Your task to perform on an android device: allow notifications from all sites in the chrome app Image 0: 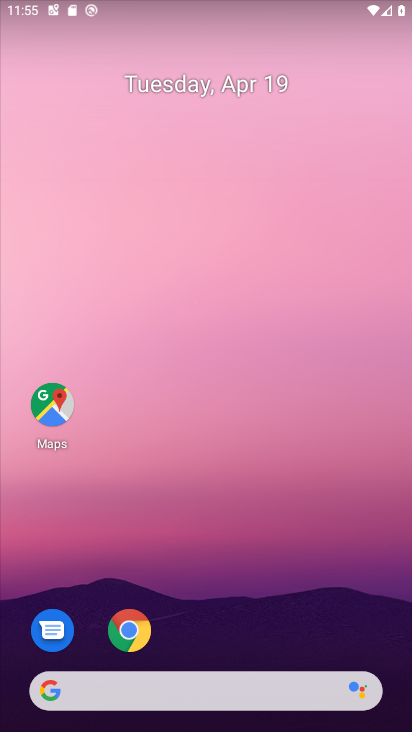
Step 0: drag from (278, 620) to (288, 39)
Your task to perform on an android device: allow notifications from all sites in the chrome app Image 1: 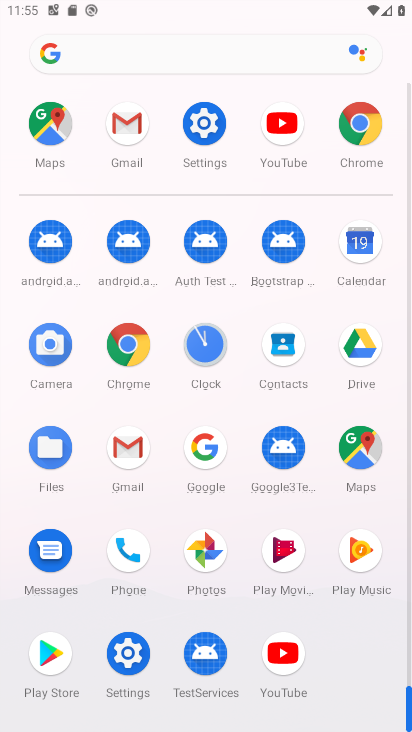
Step 1: click (129, 335)
Your task to perform on an android device: allow notifications from all sites in the chrome app Image 2: 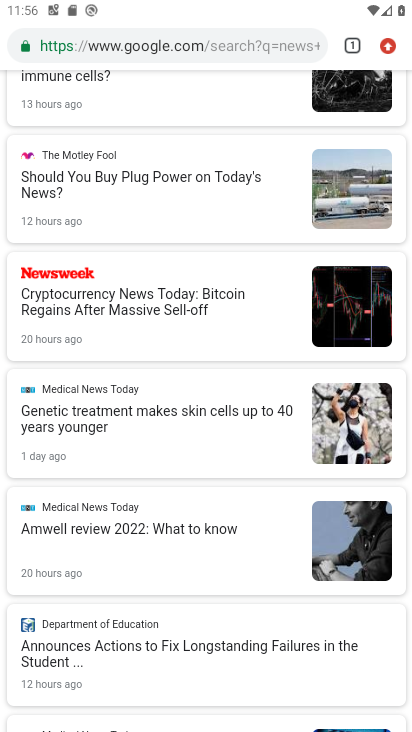
Step 2: drag from (385, 43) to (221, 561)
Your task to perform on an android device: allow notifications from all sites in the chrome app Image 3: 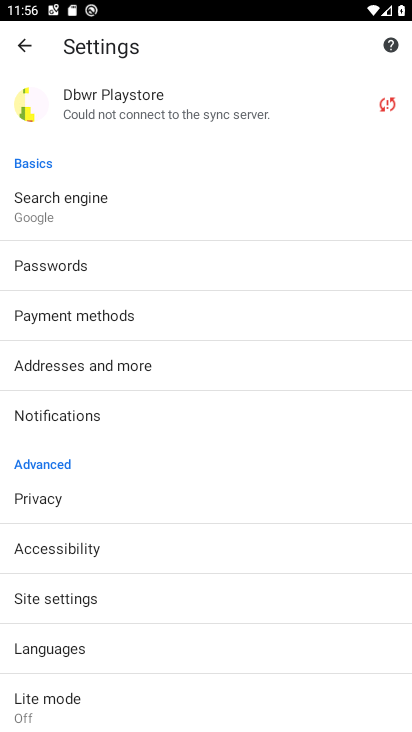
Step 3: click (65, 594)
Your task to perform on an android device: allow notifications from all sites in the chrome app Image 4: 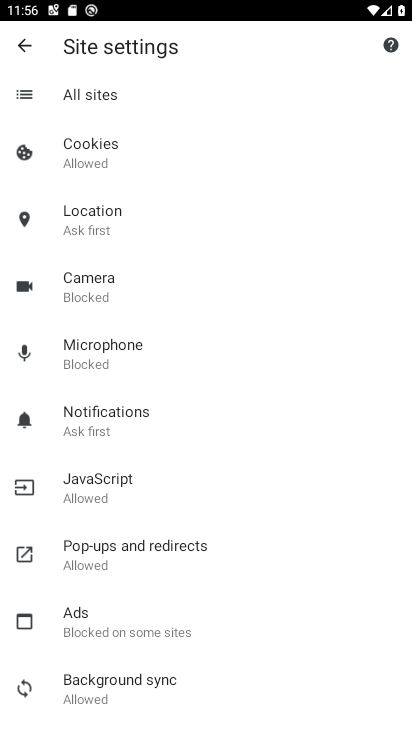
Step 4: click (96, 97)
Your task to perform on an android device: allow notifications from all sites in the chrome app Image 5: 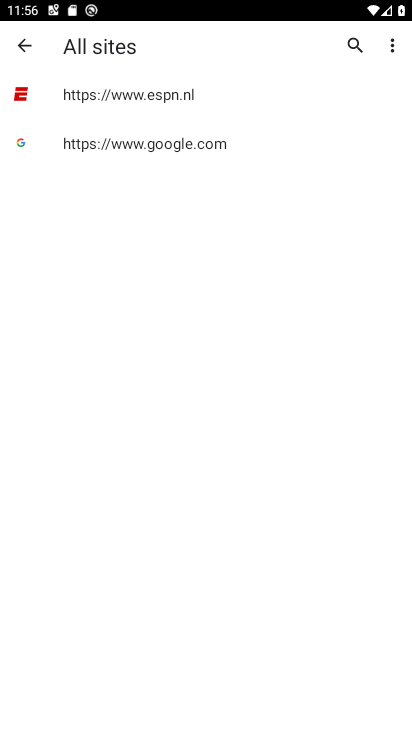
Step 5: click (152, 96)
Your task to perform on an android device: allow notifications from all sites in the chrome app Image 6: 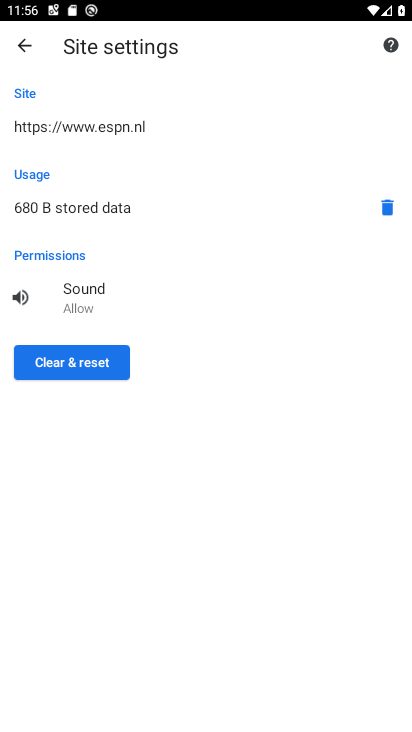
Step 6: click (22, 46)
Your task to perform on an android device: allow notifications from all sites in the chrome app Image 7: 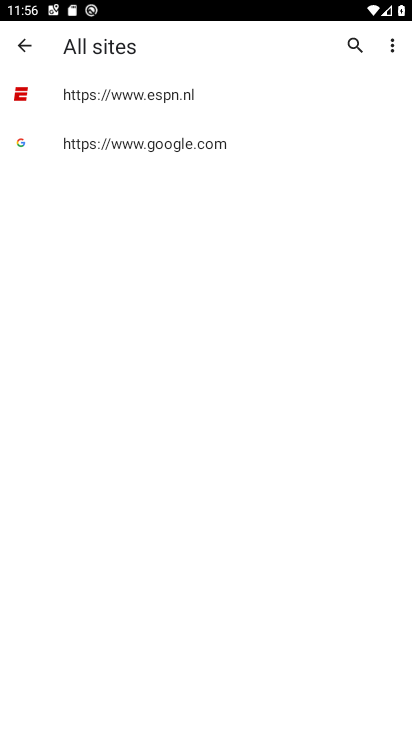
Step 7: click (108, 91)
Your task to perform on an android device: allow notifications from all sites in the chrome app Image 8: 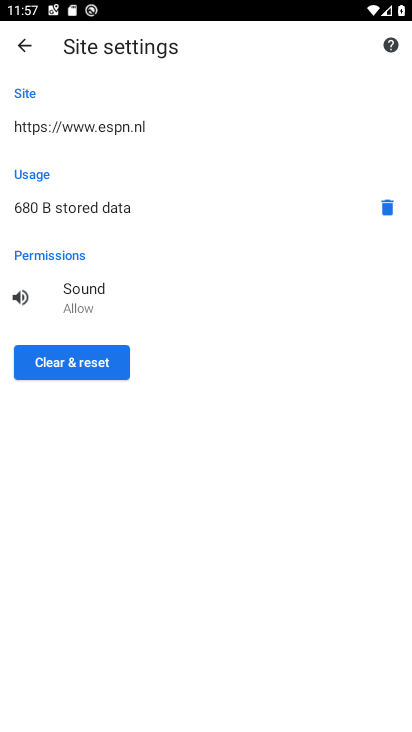
Step 8: click (18, 43)
Your task to perform on an android device: allow notifications from all sites in the chrome app Image 9: 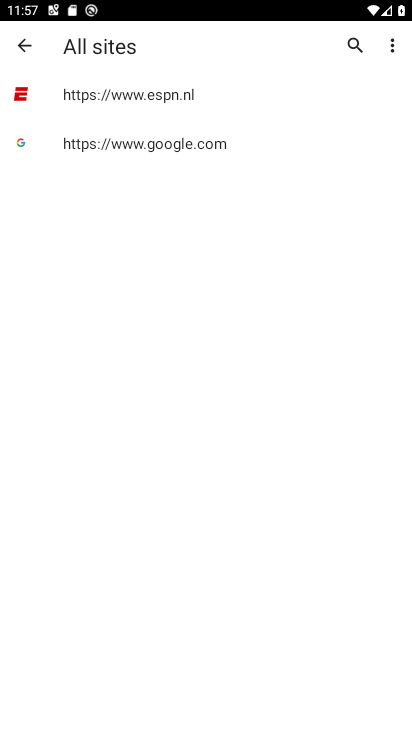
Step 9: click (21, 43)
Your task to perform on an android device: allow notifications from all sites in the chrome app Image 10: 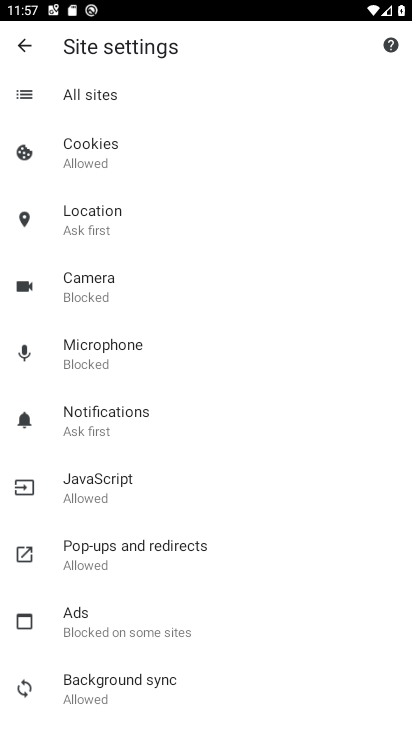
Step 10: click (93, 103)
Your task to perform on an android device: allow notifications from all sites in the chrome app Image 11: 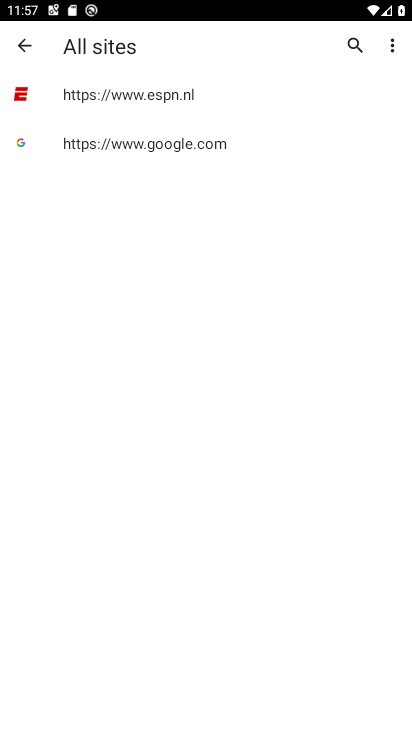
Step 11: click (125, 144)
Your task to perform on an android device: allow notifications from all sites in the chrome app Image 12: 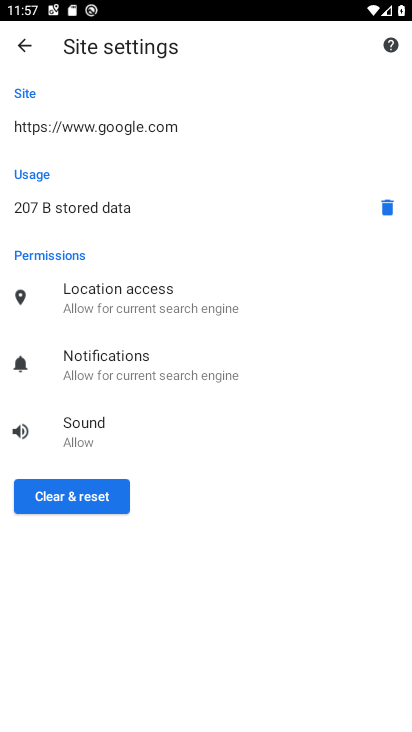
Step 12: click (125, 358)
Your task to perform on an android device: allow notifications from all sites in the chrome app Image 13: 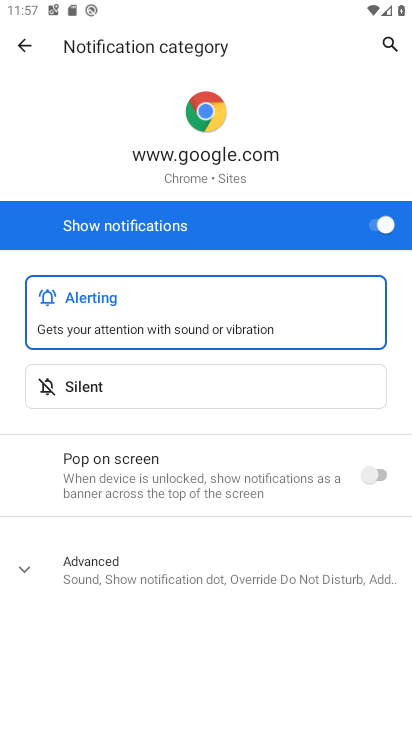
Step 13: task complete